Your task to perform on an android device: toggle priority inbox in the gmail app Image 0: 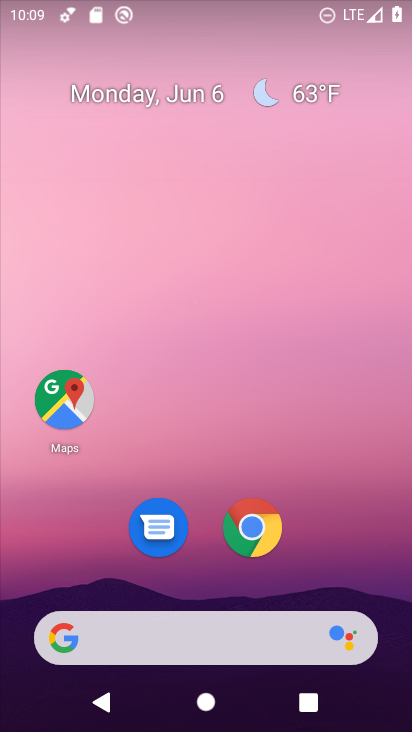
Step 0: drag from (363, 560) to (351, 60)
Your task to perform on an android device: toggle priority inbox in the gmail app Image 1: 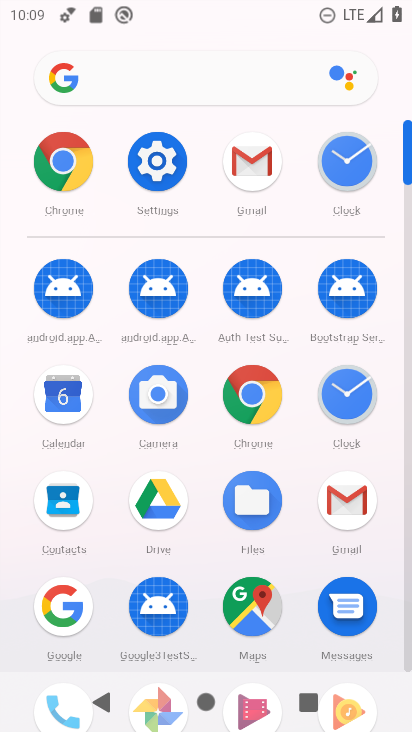
Step 1: click (363, 505)
Your task to perform on an android device: toggle priority inbox in the gmail app Image 2: 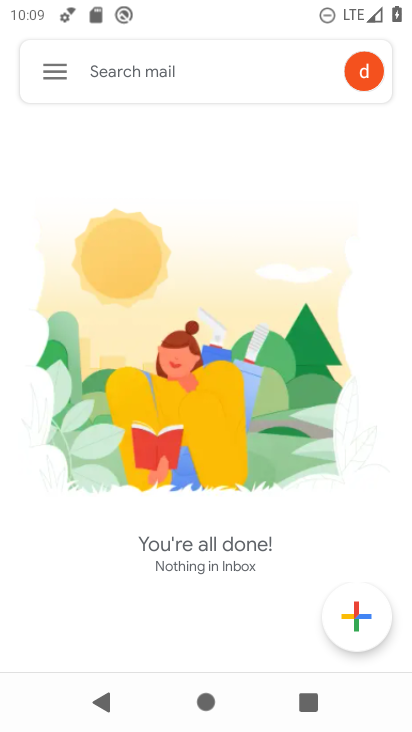
Step 2: click (60, 73)
Your task to perform on an android device: toggle priority inbox in the gmail app Image 3: 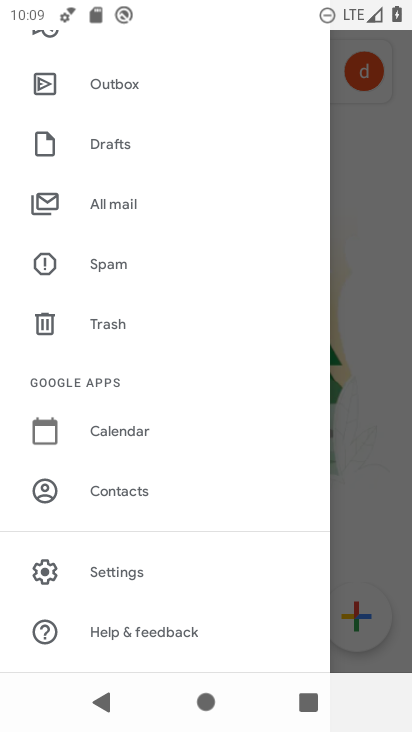
Step 3: click (138, 567)
Your task to perform on an android device: toggle priority inbox in the gmail app Image 4: 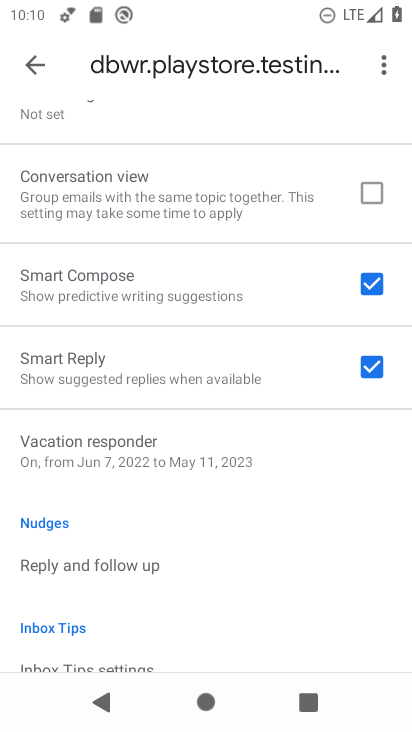
Step 4: task complete